Your task to perform on an android device: Open the stopwatch Image 0: 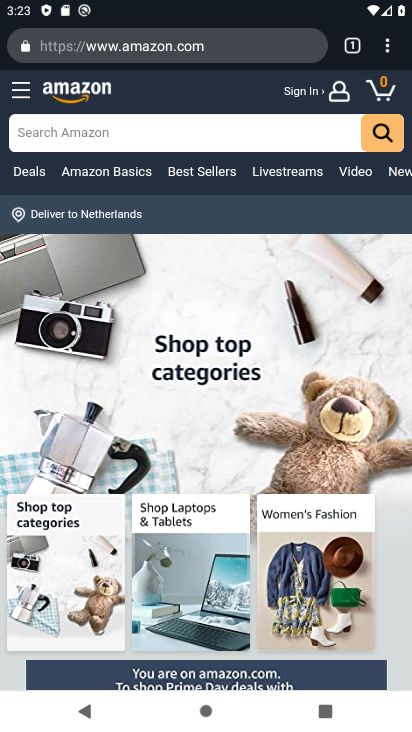
Step 0: press home button
Your task to perform on an android device: Open the stopwatch Image 1: 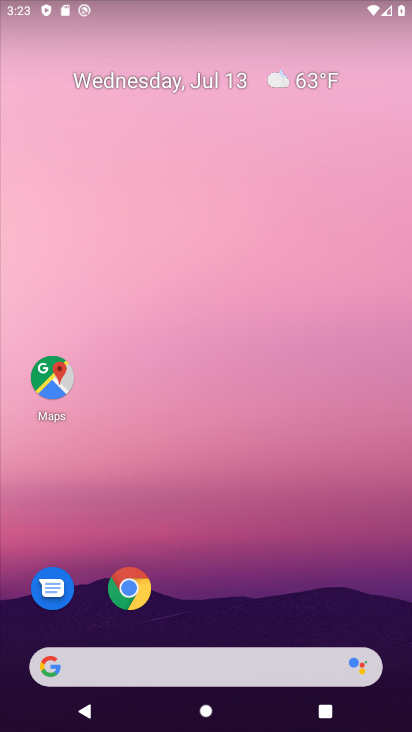
Step 1: drag from (221, 586) to (301, 189)
Your task to perform on an android device: Open the stopwatch Image 2: 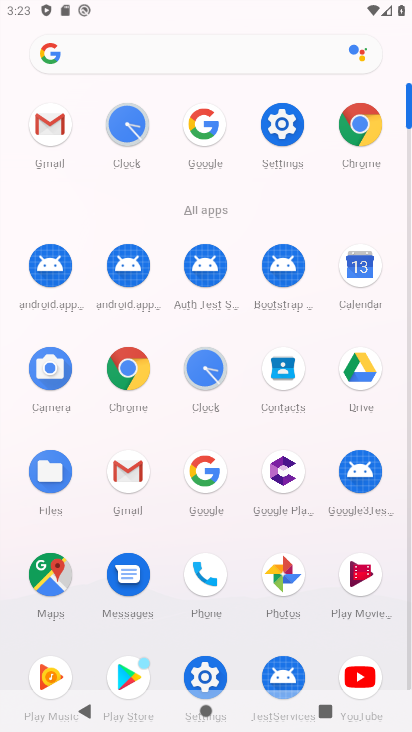
Step 2: click (219, 371)
Your task to perform on an android device: Open the stopwatch Image 3: 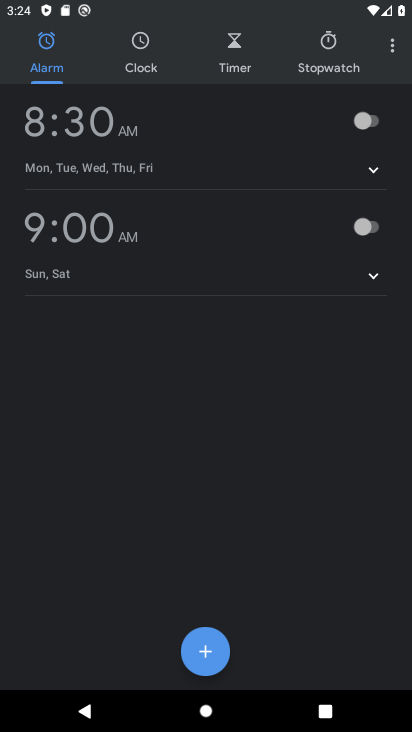
Step 3: click (329, 36)
Your task to perform on an android device: Open the stopwatch Image 4: 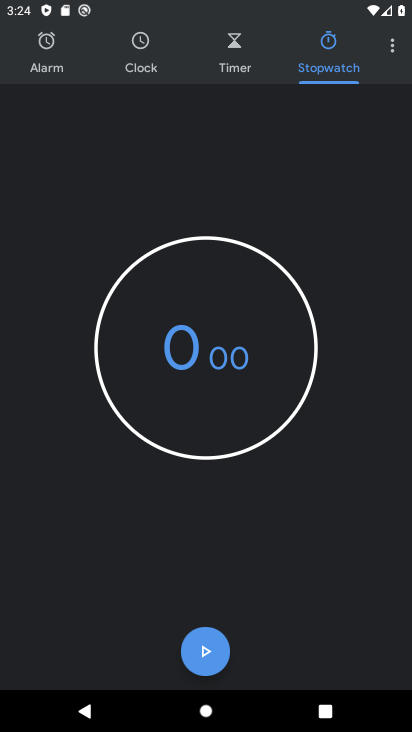
Step 4: click (207, 652)
Your task to perform on an android device: Open the stopwatch Image 5: 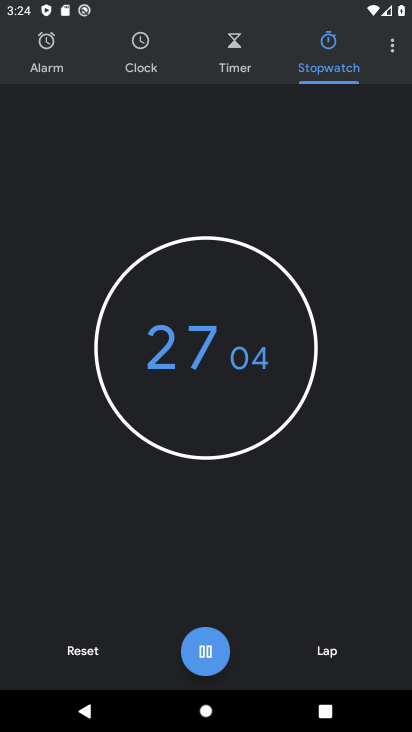
Step 5: task complete